Your task to perform on an android device: Go to accessibility settings Image 0: 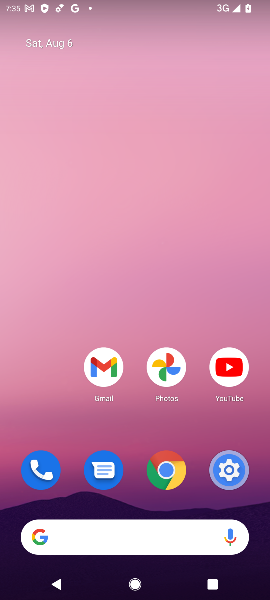
Step 0: drag from (111, 487) to (73, 4)
Your task to perform on an android device: Go to accessibility settings Image 1: 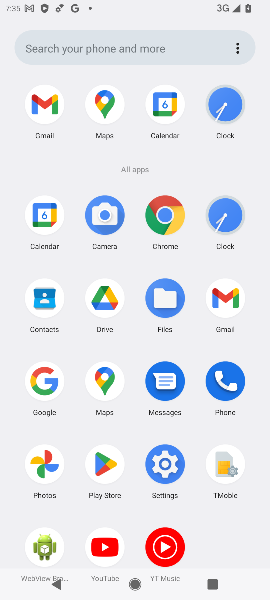
Step 1: click (162, 462)
Your task to perform on an android device: Go to accessibility settings Image 2: 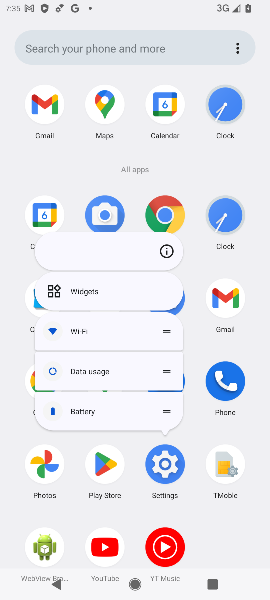
Step 2: click (164, 459)
Your task to perform on an android device: Go to accessibility settings Image 3: 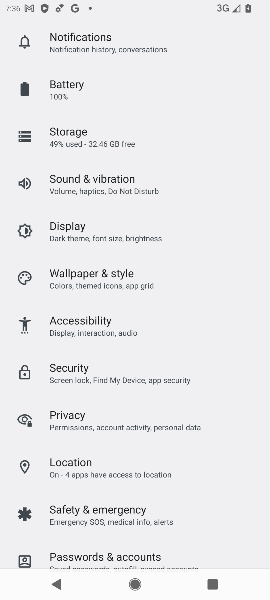
Step 3: click (106, 317)
Your task to perform on an android device: Go to accessibility settings Image 4: 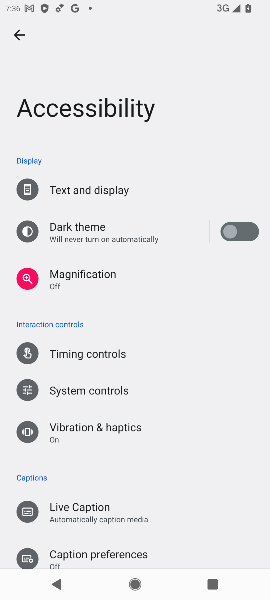
Step 4: task complete